Your task to perform on an android device: Do I have any events this weekend? Image 0: 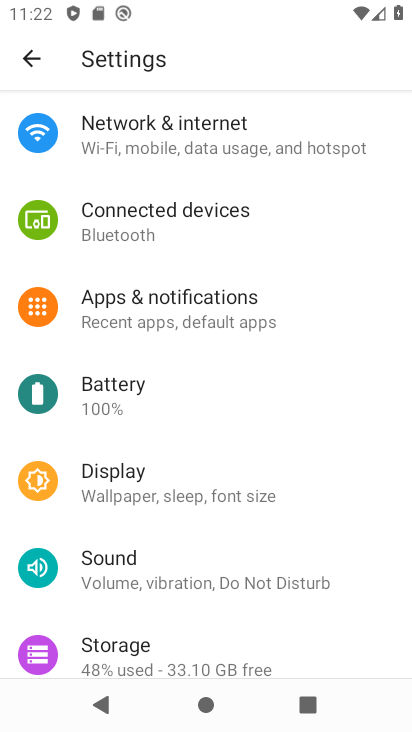
Step 0: press home button
Your task to perform on an android device: Do I have any events this weekend? Image 1: 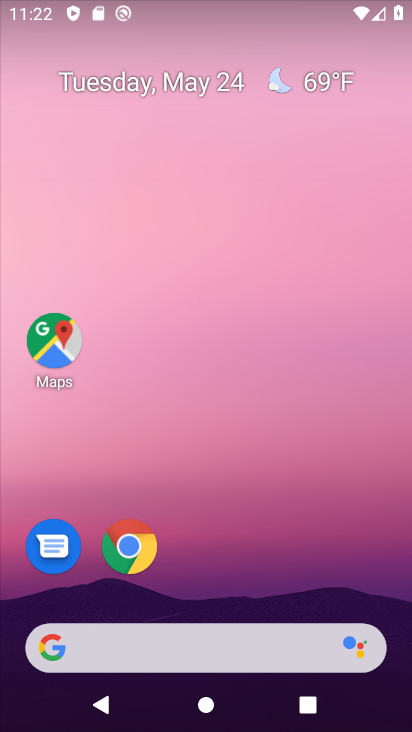
Step 1: drag from (253, 594) to (270, 282)
Your task to perform on an android device: Do I have any events this weekend? Image 2: 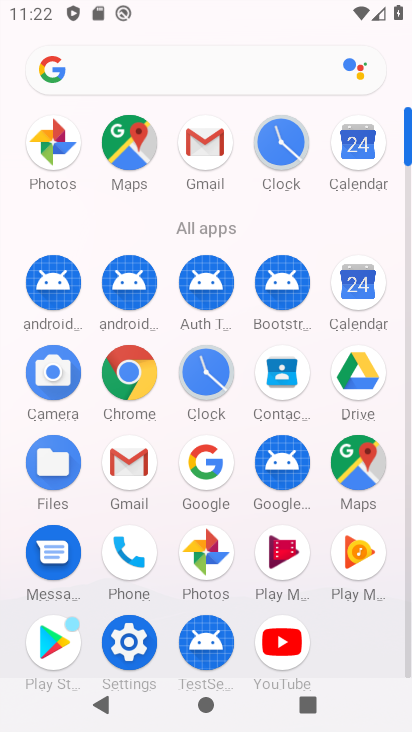
Step 2: click (348, 288)
Your task to perform on an android device: Do I have any events this weekend? Image 3: 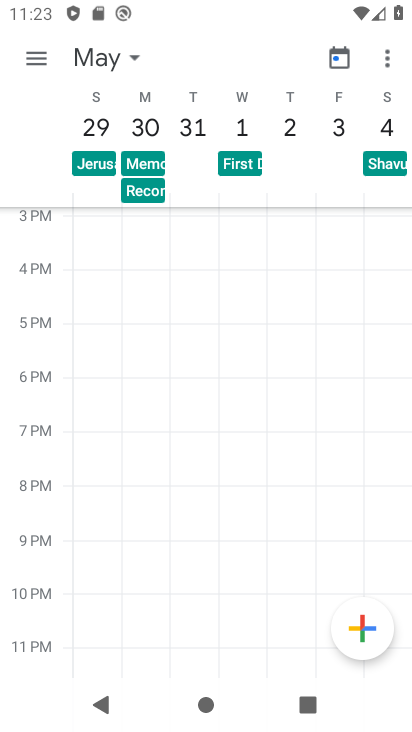
Step 3: task complete